Your task to perform on an android device: turn on the 12-hour format for clock Image 0: 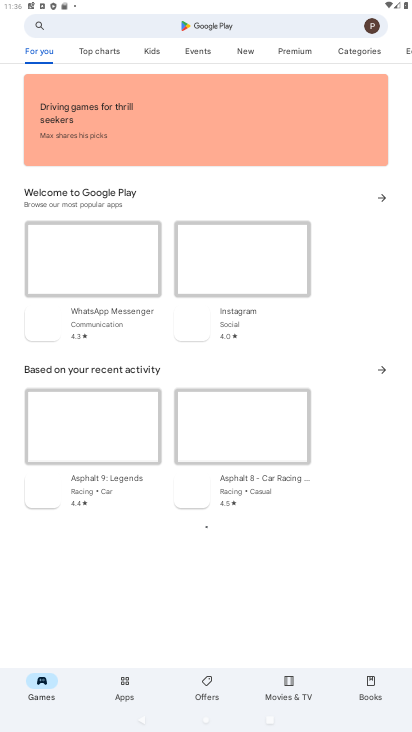
Step 0: press home button
Your task to perform on an android device: turn on the 12-hour format for clock Image 1: 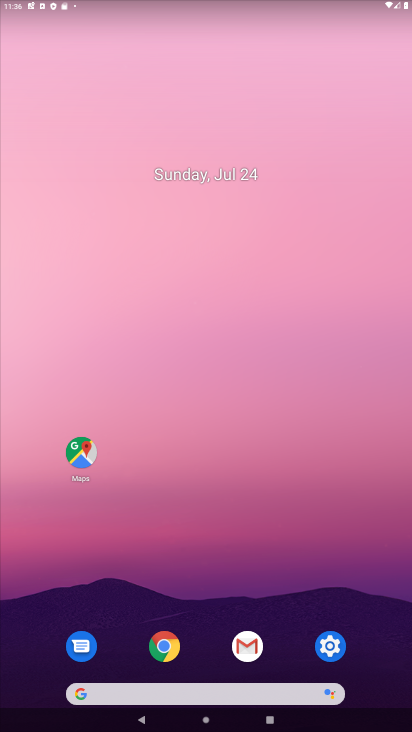
Step 1: drag from (246, 709) to (243, 195)
Your task to perform on an android device: turn on the 12-hour format for clock Image 2: 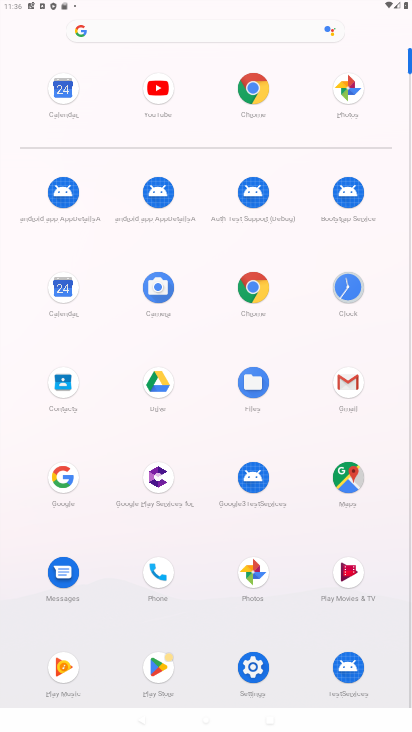
Step 2: click (343, 291)
Your task to perform on an android device: turn on the 12-hour format for clock Image 3: 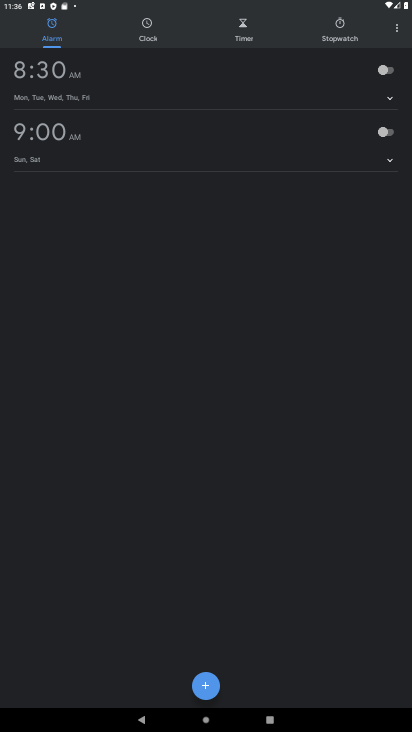
Step 3: click (392, 42)
Your task to perform on an android device: turn on the 12-hour format for clock Image 4: 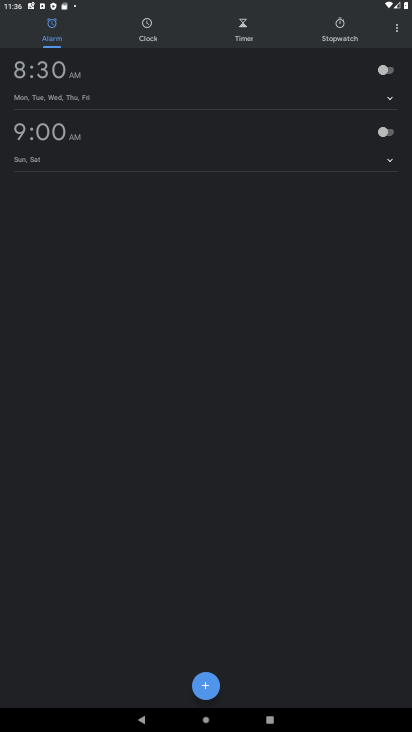
Step 4: click (386, 36)
Your task to perform on an android device: turn on the 12-hour format for clock Image 5: 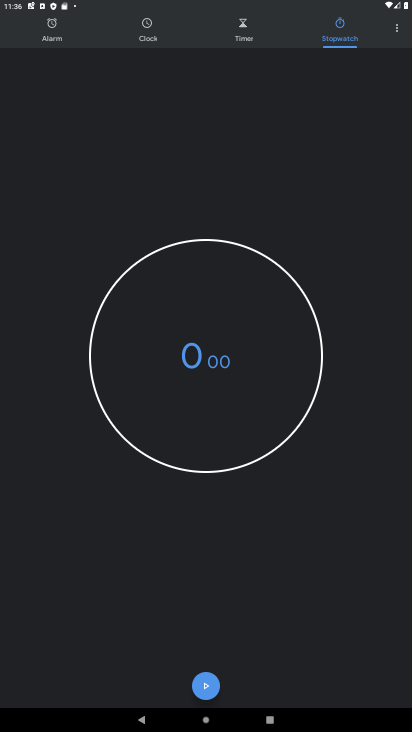
Step 5: click (393, 36)
Your task to perform on an android device: turn on the 12-hour format for clock Image 6: 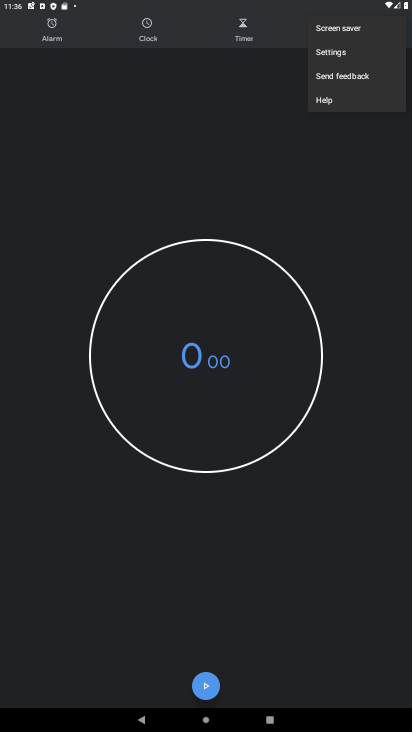
Step 6: click (337, 49)
Your task to perform on an android device: turn on the 12-hour format for clock Image 7: 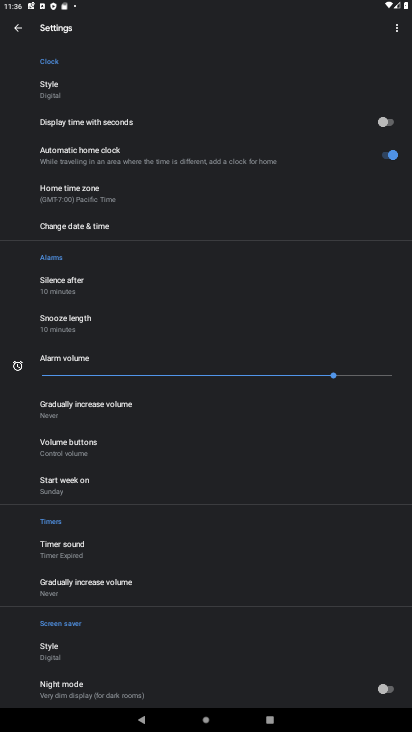
Step 7: click (90, 229)
Your task to perform on an android device: turn on the 12-hour format for clock Image 8: 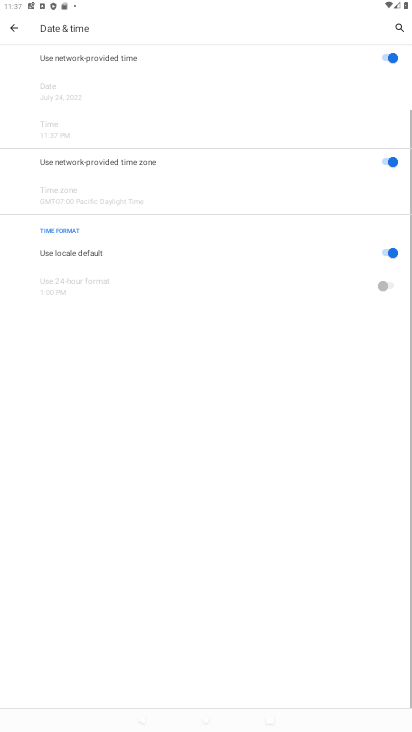
Step 8: click (374, 259)
Your task to perform on an android device: turn on the 12-hour format for clock Image 9: 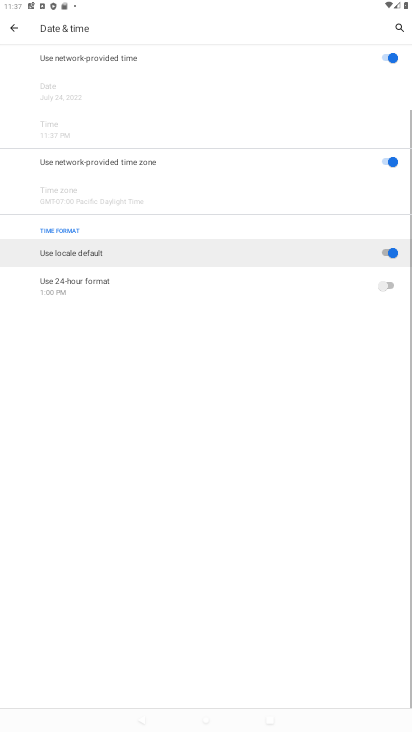
Step 9: click (385, 294)
Your task to perform on an android device: turn on the 12-hour format for clock Image 10: 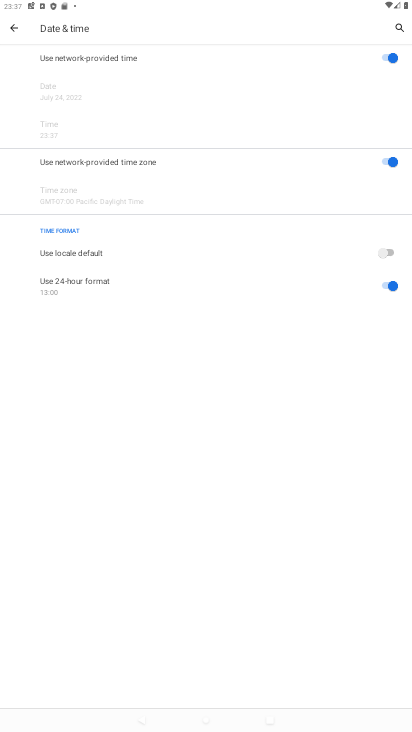
Step 10: click (400, 282)
Your task to perform on an android device: turn on the 12-hour format for clock Image 11: 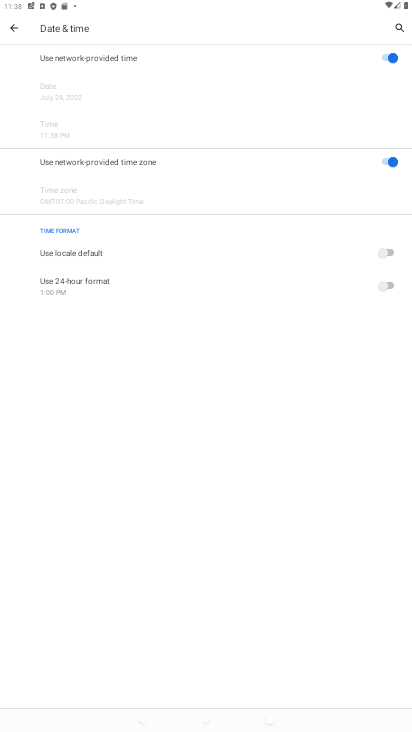
Step 11: task complete